Your task to perform on an android device: Open wifi settings Image 0: 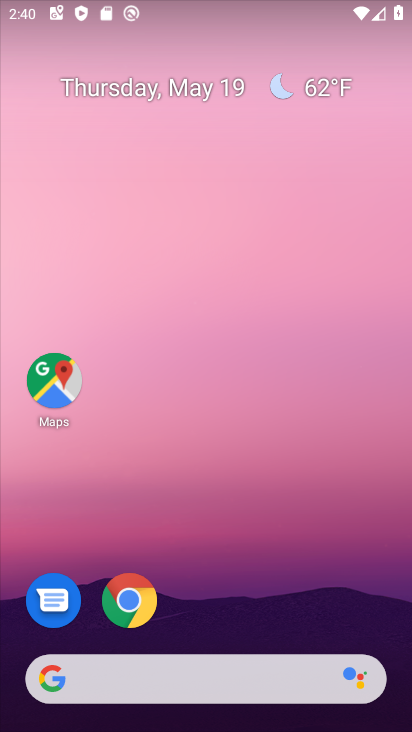
Step 0: drag from (302, 7) to (254, 498)
Your task to perform on an android device: Open wifi settings Image 1: 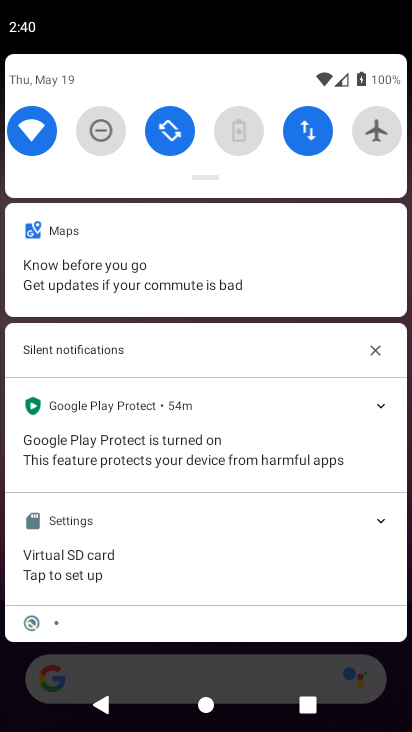
Step 1: click (42, 129)
Your task to perform on an android device: Open wifi settings Image 2: 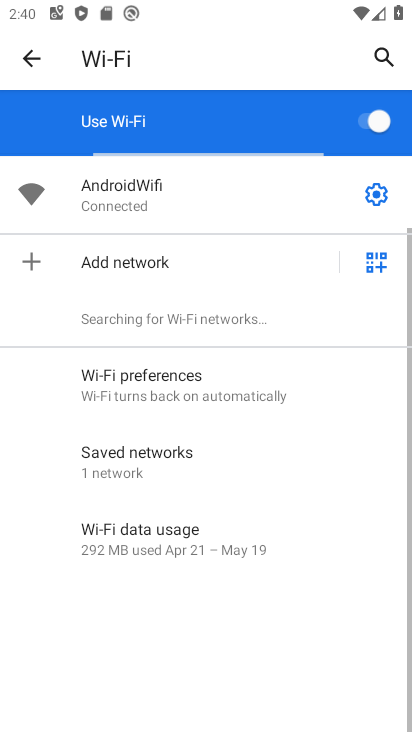
Step 2: click (368, 186)
Your task to perform on an android device: Open wifi settings Image 3: 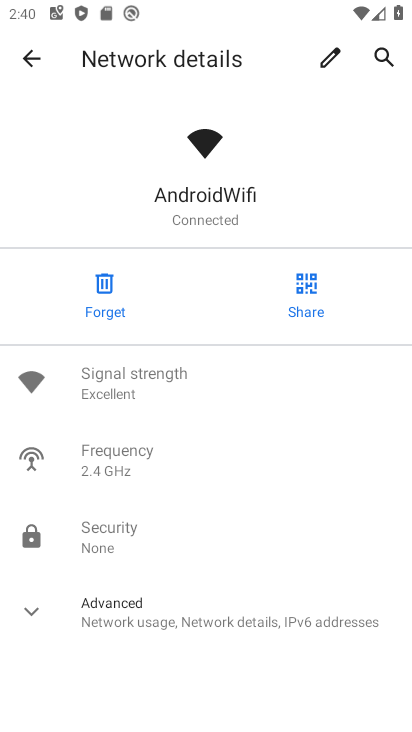
Step 3: task complete